Your task to perform on an android device: turn on location history Image 0: 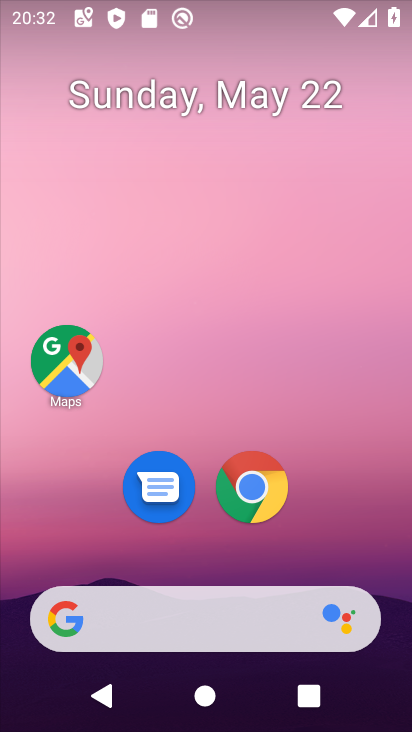
Step 0: drag from (176, 553) to (263, 60)
Your task to perform on an android device: turn on location history Image 1: 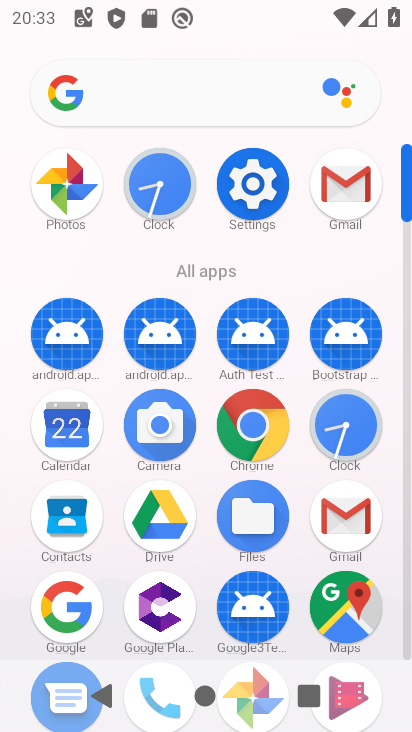
Step 1: drag from (211, 567) to (236, 307)
Your task to perform on an android device: turn on location history Image 2: 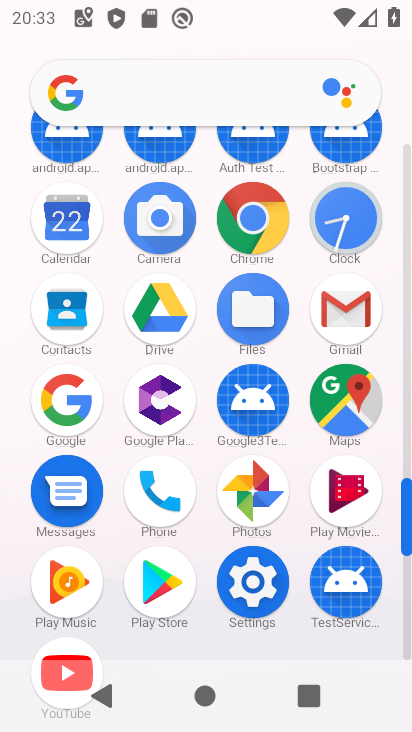
Step 2: click (247, 598)
Your task to perform on an android device: turn on location history Image 3: 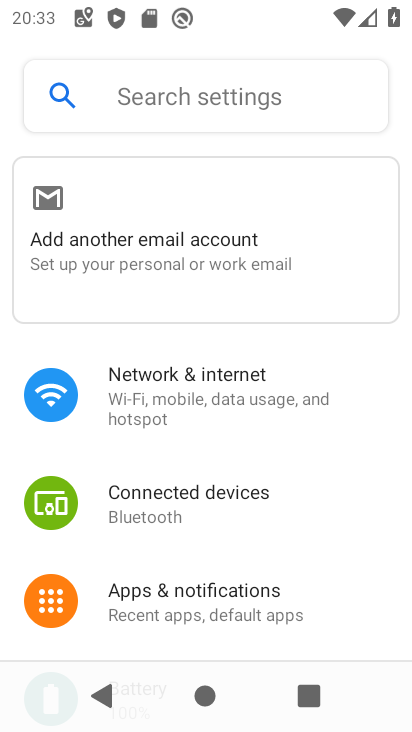
Step 3: drag from (247, 598) to (286, 312)
Your task to perform on an android device: turn on location history Image 4: 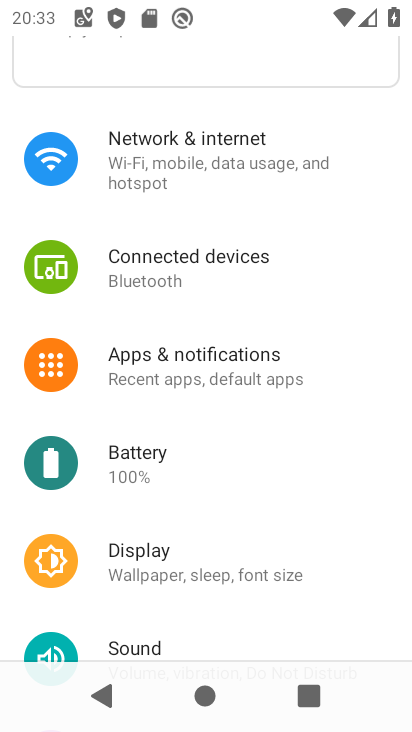
Step 4: drag from (156, 632) to (259, 271)
Your task to perform on an android device: turn on location history Image 5: 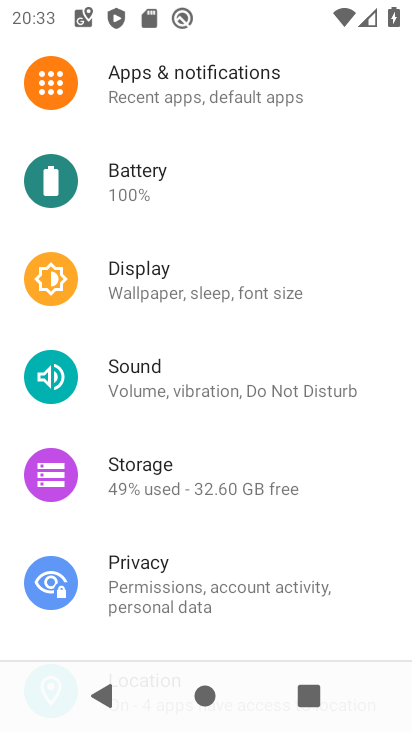
Step 5: drag from (212, 510) to (285, 100)
Your task to perform on an android device: turn on location history Image 6: 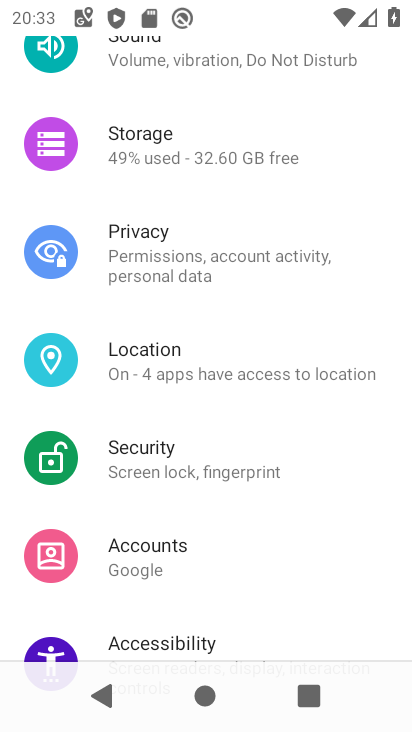
Step 6: click (170, 381)
Your task to perform on an android device: turn on location history Image 7: 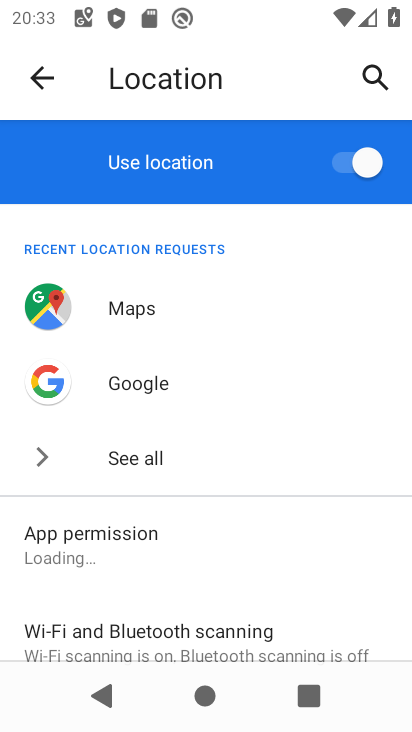
Step 7: drag from (149, 629) to (345, 22)
Your task to perform on an android device: turn on location history Image 8: 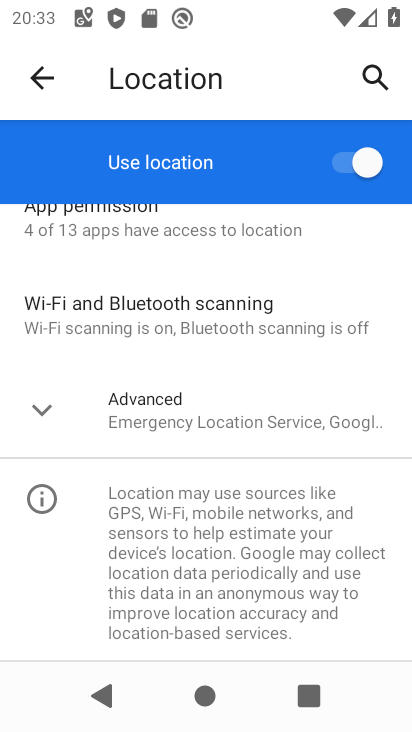
Step 8: click (214, 434)
Your task to perform on an android device: turn on location history Image 9: 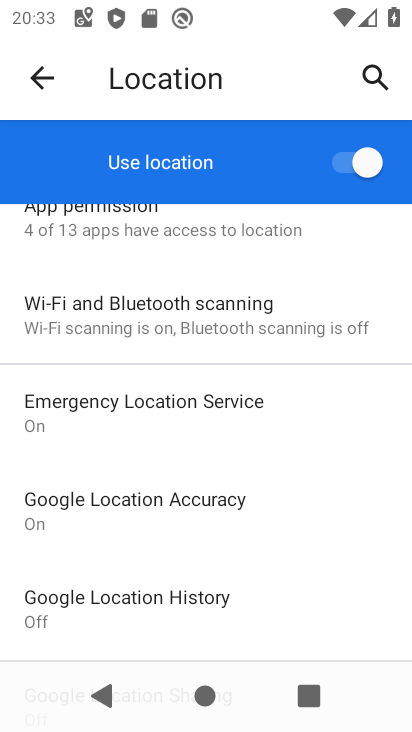
Step 9: click (218, 609)
Your task to perform on an android device: turn on location history Image 10: 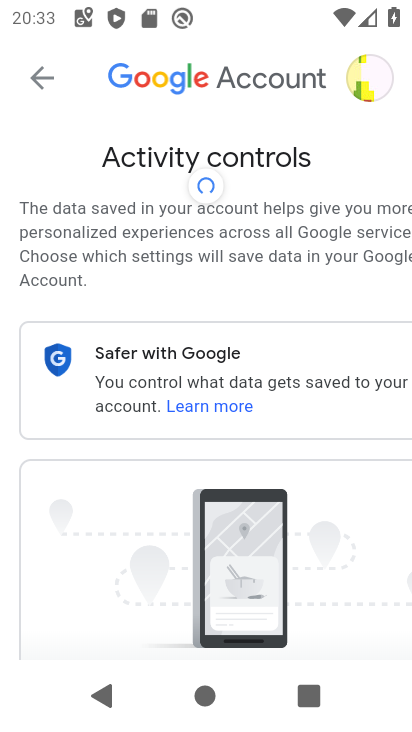
Step 10: drag from (119, 592) to (222, 176)
Your task to perform on an android device: turn on location history Image 11: 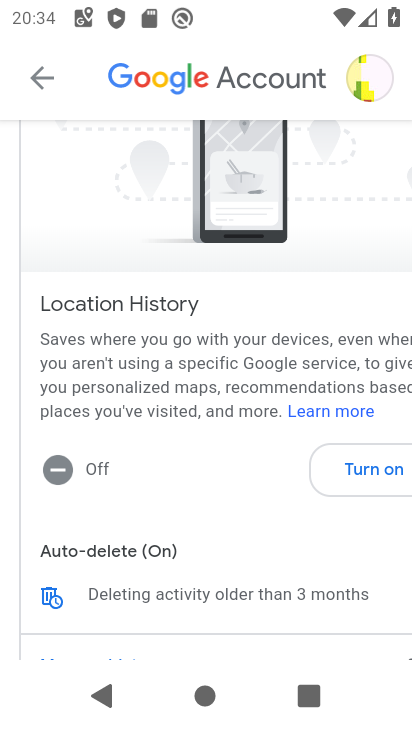
Step 11: click (391, 470)
Your task to perform on an android device: turn on location history Image 12: 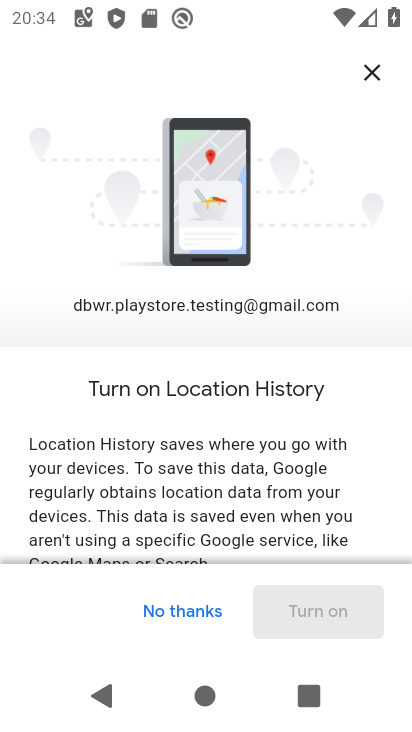
Step 12: drag from (215, 432) to (281, 135)
Your task to perform on an android device: turn on location history Image 13: 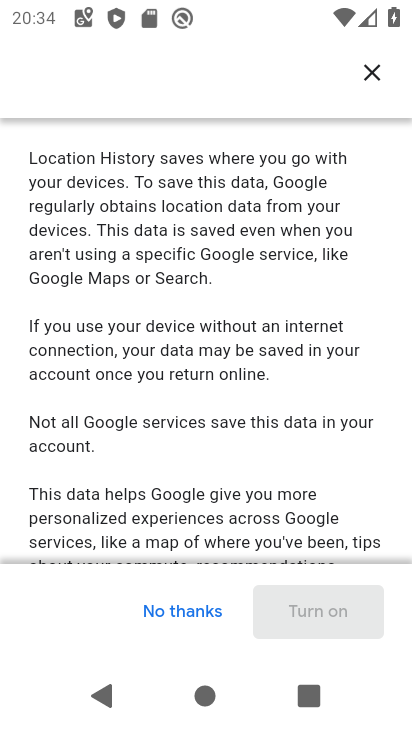
Step 13: drag from (187, 498) to (256, 91)
Your task to perform on an android device: turn on location history Image 14: 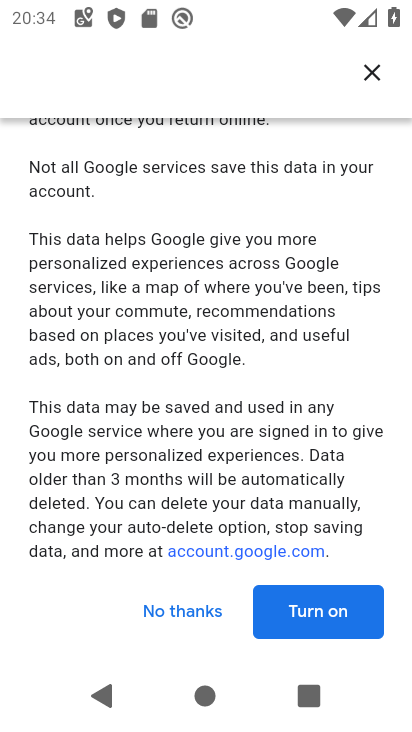
Step 14: click (329, 628)
Your task to perform on an android device: turn on location history Image 15: 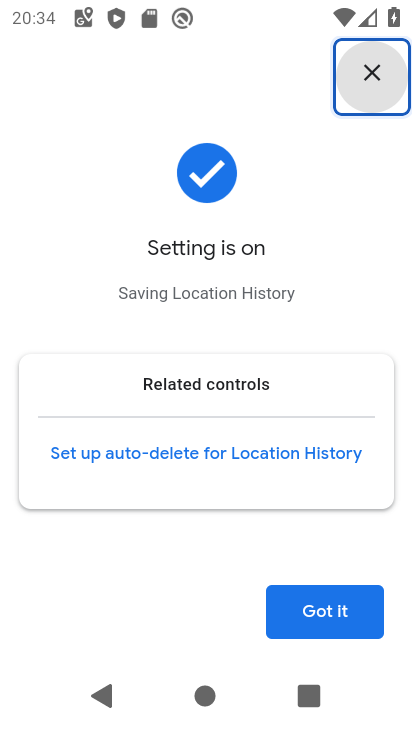
Step 15: task complete